Your task to perform on an android device: Open the calendar and show me this week's events? Image 0: 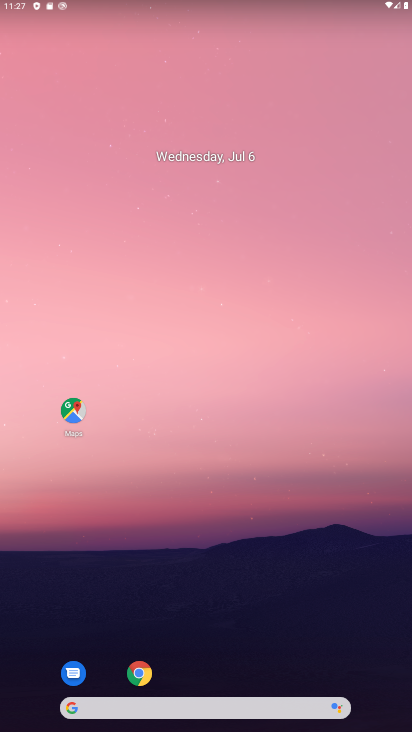
Step 0: drag from (238, 594) to (151, 112)
Your task to perform on an android device: Open the calendar and show me this week's events? Image 1: 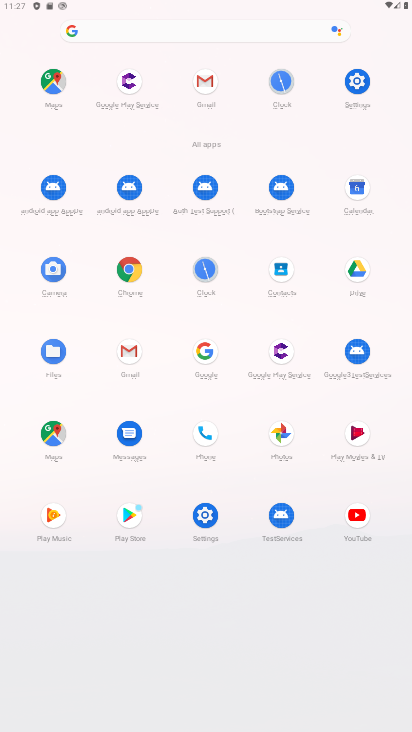
Step 1: click (357, 188)
Your task to perform on an android device: Open the calendar and show me this week's events? Image 2: 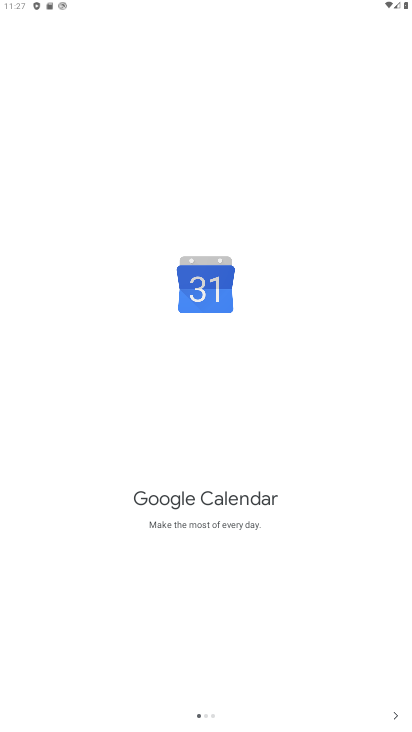
Step 2: click (395, 714)
Your task to perform on an android device: Open the calendar and show me this week's events? Image 3: 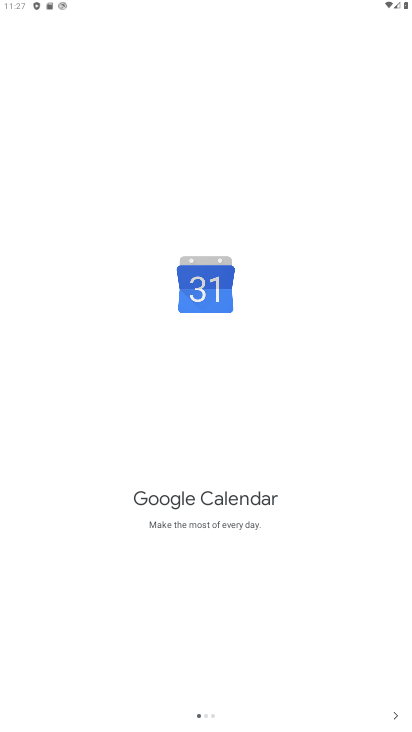
Step 3: click (395, 714)
Your task to perform on an android device: Open the calendar and show me this week's events? Image 4: 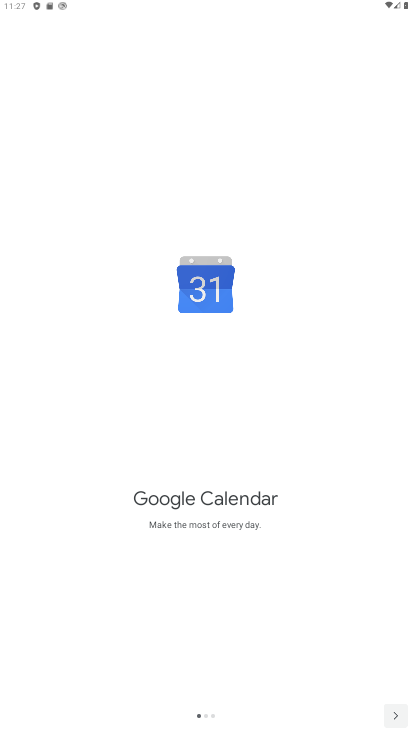
Step 4: click (395, 714)
Your task to perform on an android device: Open the calendar and show me this week's events? Image 5: 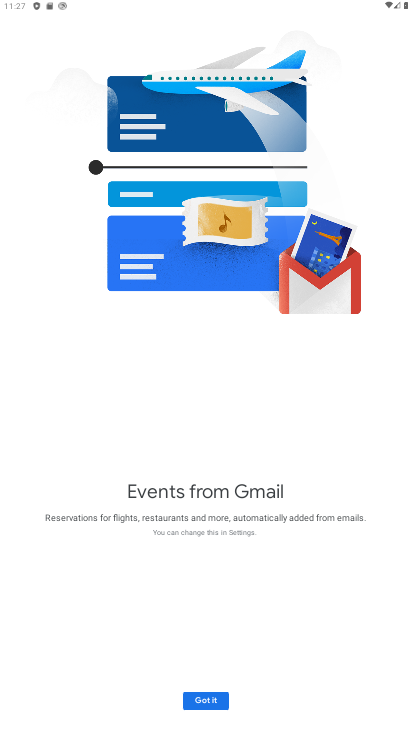
Step 5: click (211, 701)
Your task to perform on an android device: Open the calendar and show me this week's events? Image 6: 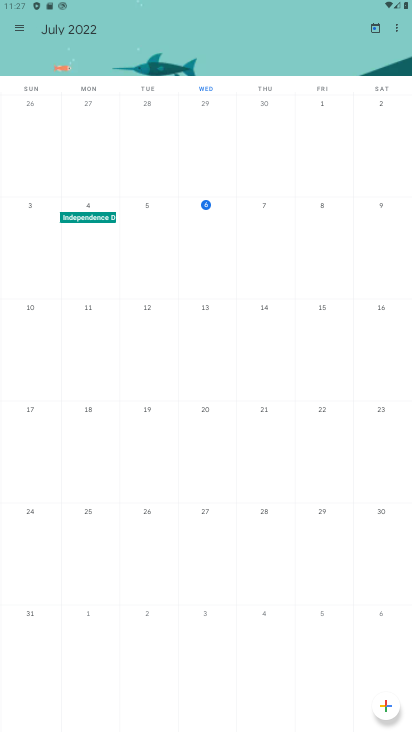
Step 6: click (206, 205)
Your task to perform on an android device: Open the calendar and show me this week's events? Image 7: 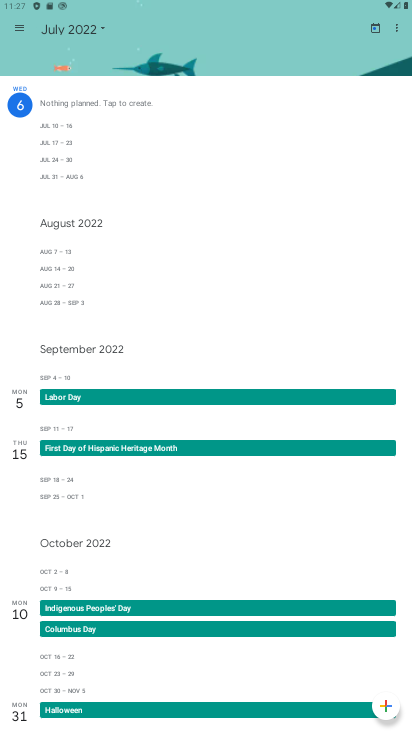
Step 7: click (14, 26)
Your task to perform on an android device: Open the calendar and show me this week's events? Image 8: 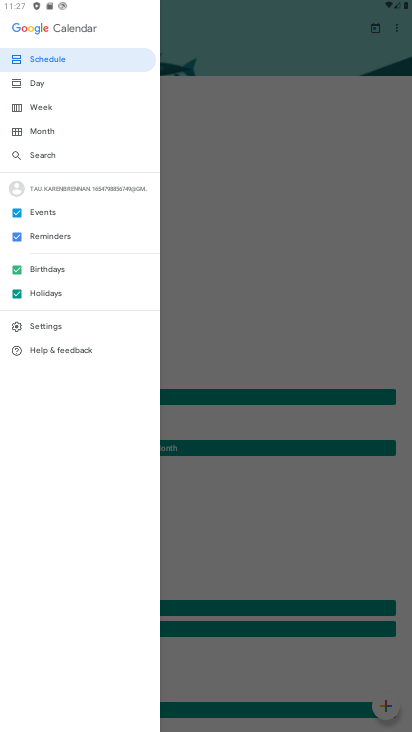
Step 8: click (35, 102)
Your task to perform on an android device: Open the calendar and show me this week's events? Image 9: 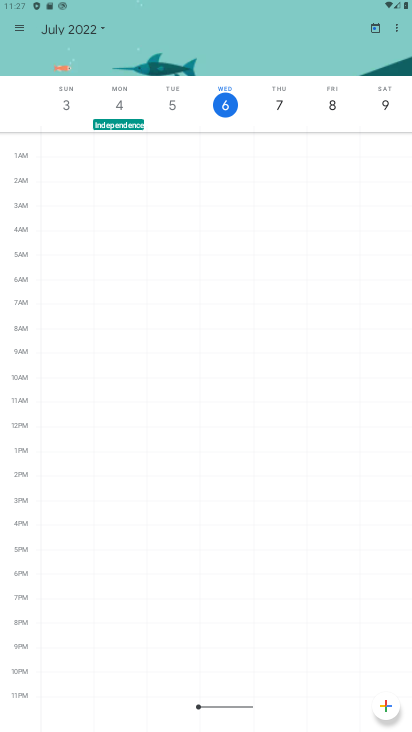
Step 9: task complete